Your task to perform on an android device: clear history in the chrome app Image 0: 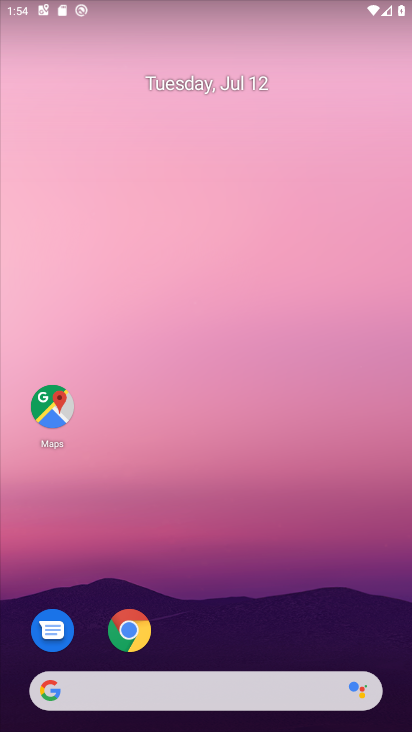
Step 0: drag from (203, 586) to (262, 266)
Your task to perform on an android device: clear history in the chrome app Image 1: 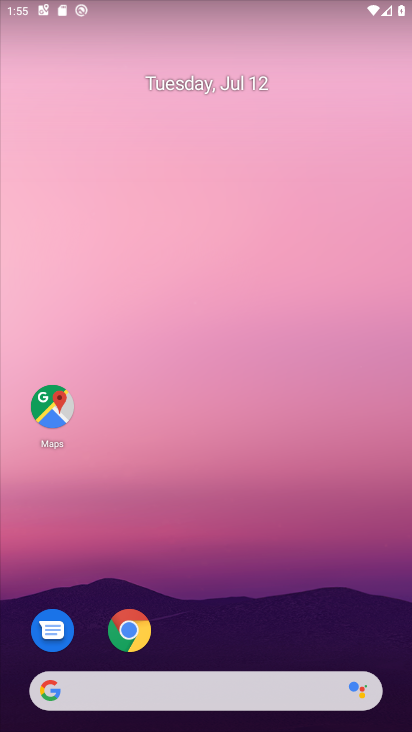
Step 1: drag from (208, 598) to (275, 215)
Your task to perform on an android device: clear history in the chrome app Image 2: 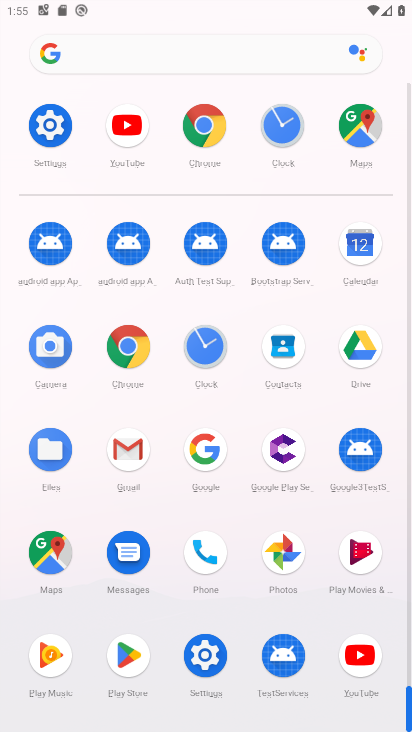
Step 2: click (206, 142)
Your task to perform on an android device: clear history in the chrome app Image 3: 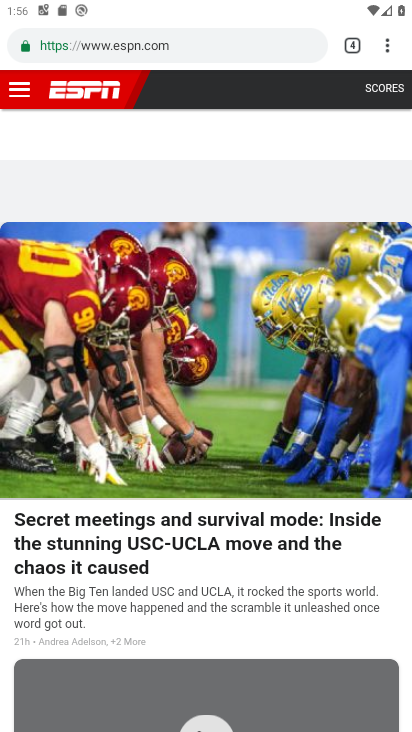
Step 3: click (385, 54)
Your task to perform on an android device: clear history in the chrome app Image 4: 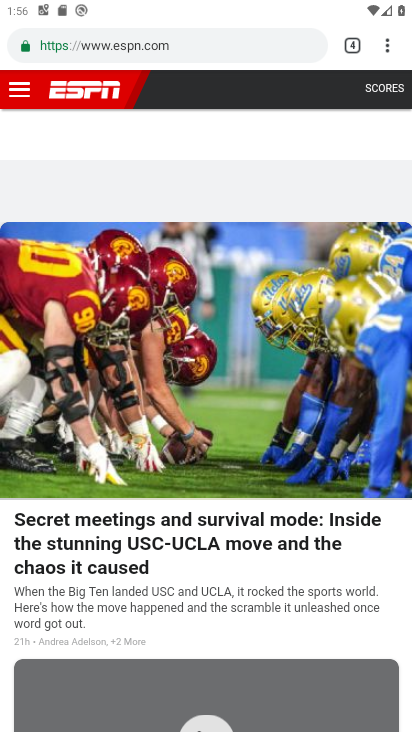
Step 4: click (389, 49)
Your task to perform on an android device: clear history in the chrome app Image 5: 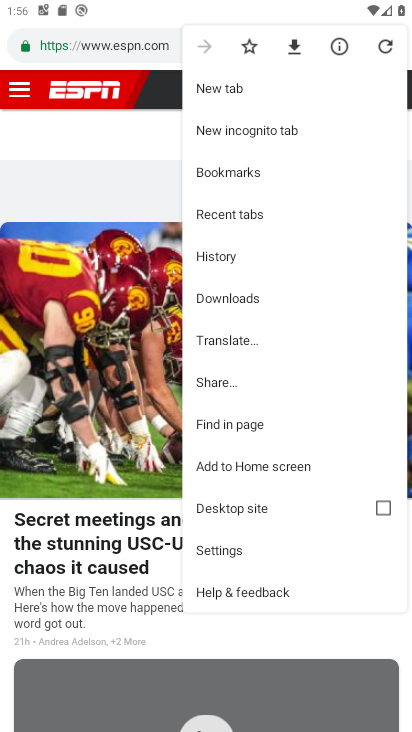
Step 5: click (242, 256)
Your task to perform on an android device: clear history in the chrome app Image 6: 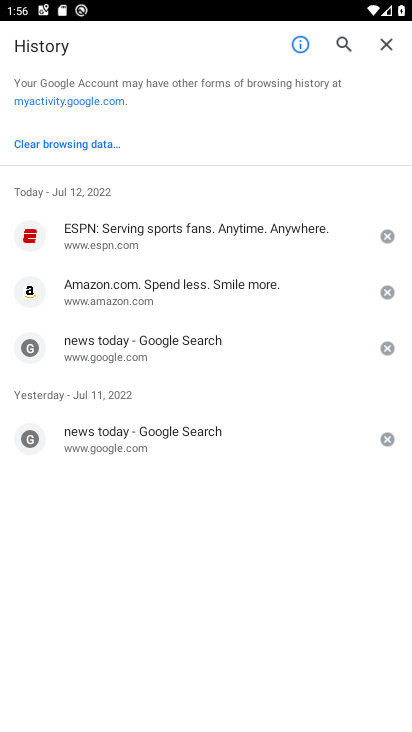
Step 6: click (51, 149)
Your task to perform on an android device: clear history in the chrome app Image 7: 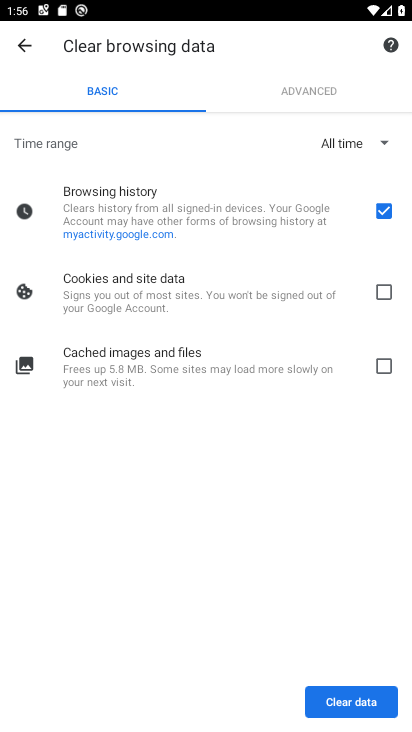
Step 7: click (357, 703)
Your task to perform on an android device: clear history in the chrome app Image 8: 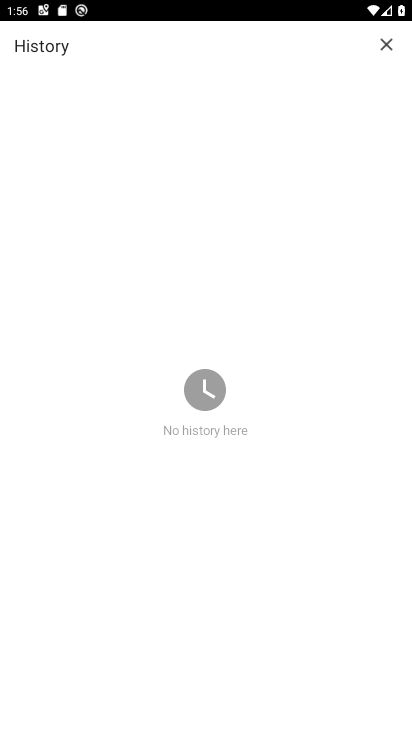
Step 8: task complete